Your task to perform on an android device: turn off notifications in google photos Image 0: 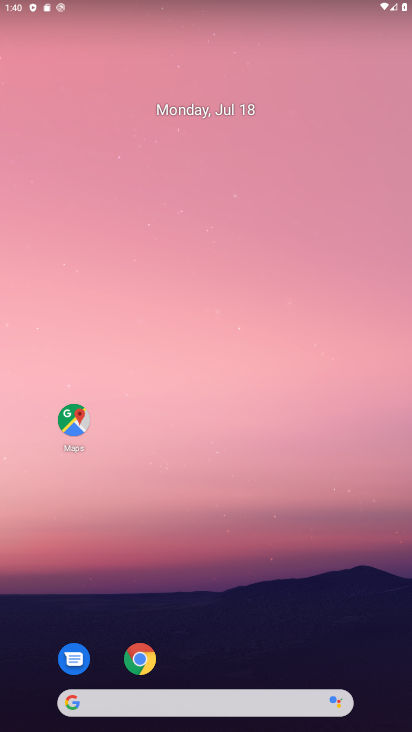
Step 0: drag from (388, 662) to (251, 89)
Your task to perform on an android device: turn off notifications in google photos Image 1: 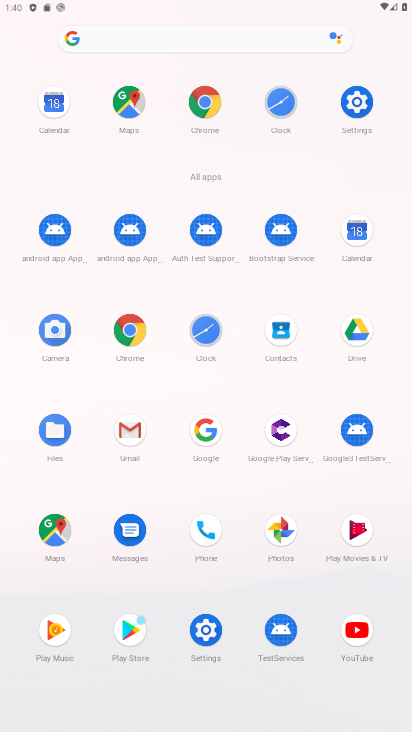
Step 1: click (282, 534)
Your task to perform on an android device: turn off notifications in google photos Image 2: 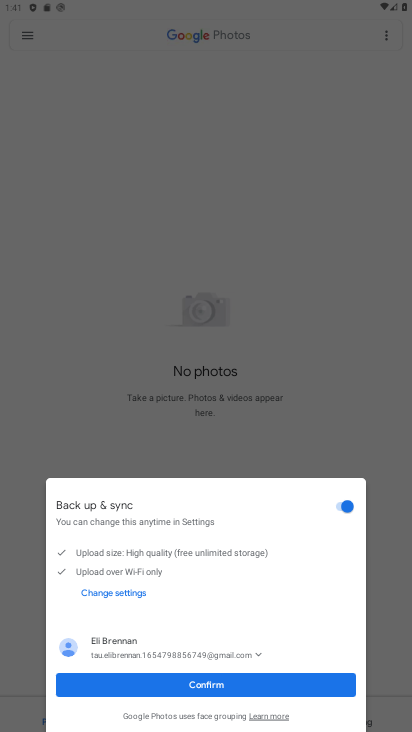
Step 2: click (271, 688)
Your task to perform on an android device: turn off notifications in google photos Image 3: 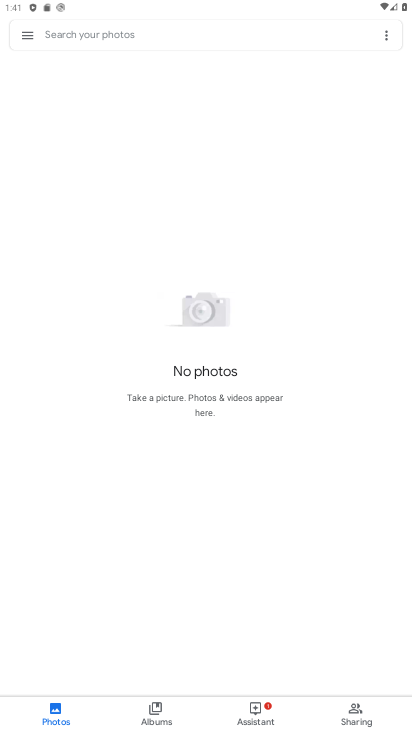
Step 3: click (25, 40)
Your task to perform on an android device: turn off notifications in google photos Image 4: 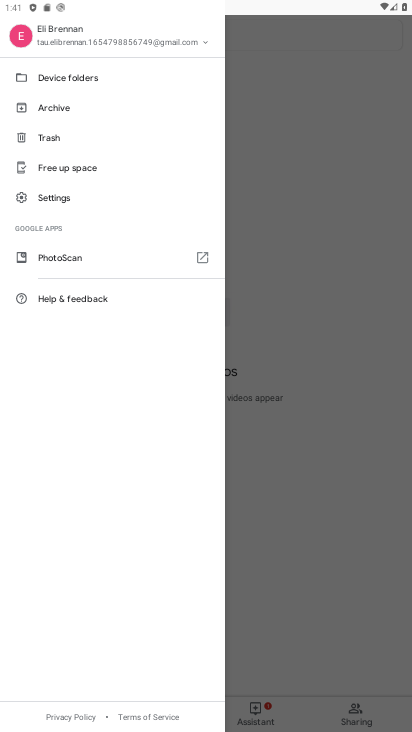
Step 4: click (60, 202)
Your task to perform on an android device: turn off notifications in google photos Image 5: 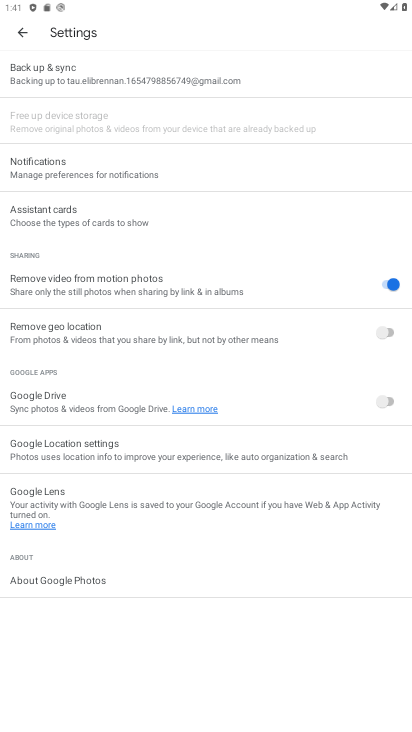
Step 5: click (76, 175)
Your task to perform on an android device: turn off notifications in google photos Image 6: 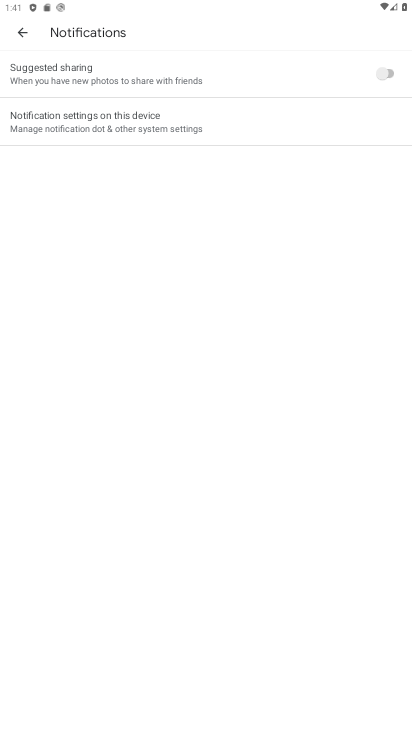
Step 6: click (137, 131)
Your task to perform on an android device: turn off notifications in google photos Image 7: 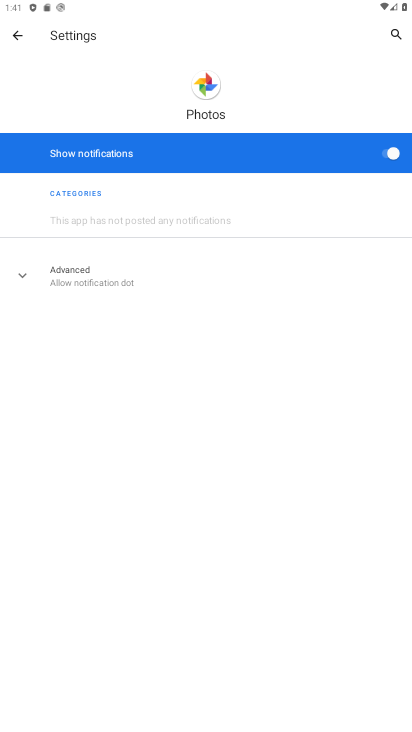
Step 7: click (387, 152)
Your task to perform on an android device: turn off notifications in google photos Image 8: 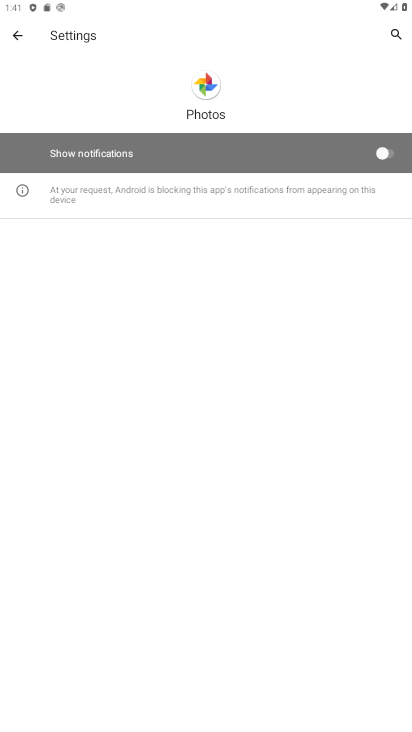
Step 8: task complete